Your task to perform on an android device: View the shopping cart on target. Add beats solo 3 to the cart on target, then select checkout. Image 0: 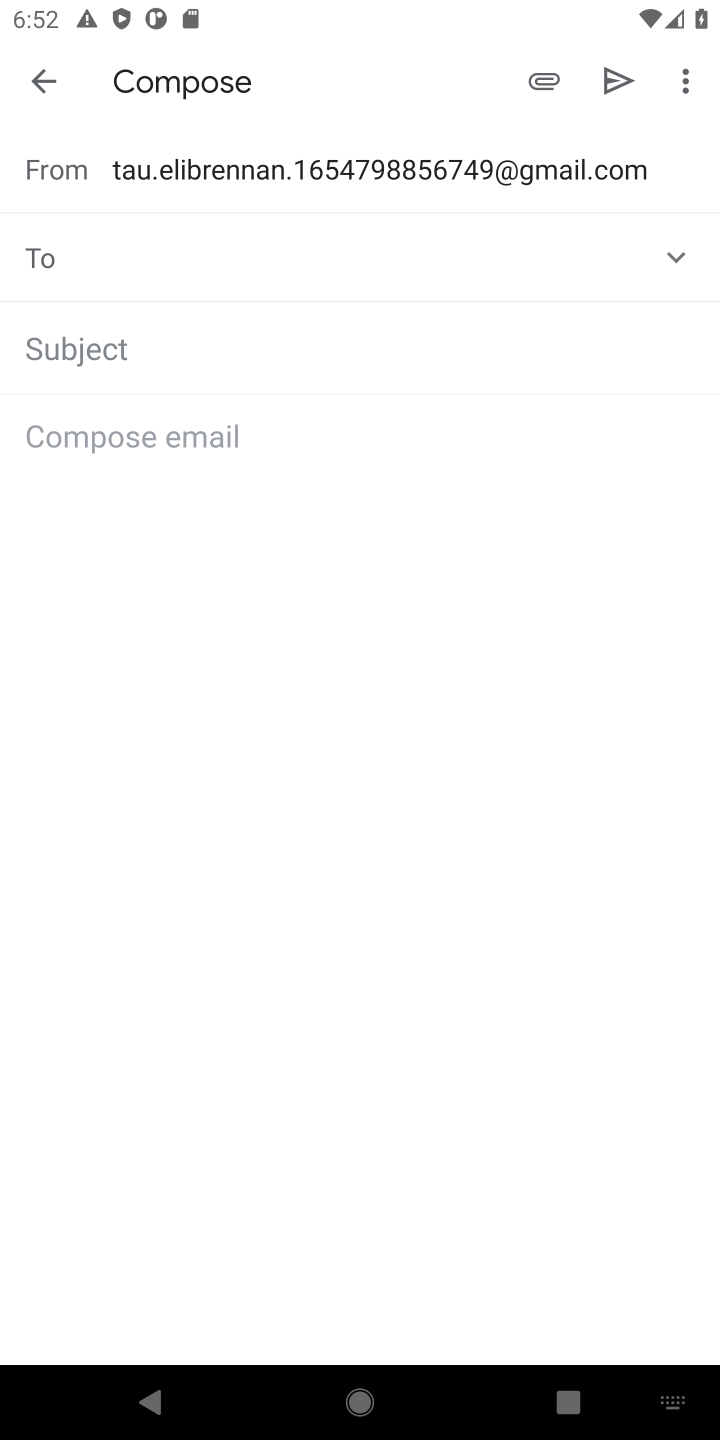
Step 0: press home button
Your task to perform on an android device: View the shopping cart on target. Add beats solo 3 to the cart on target, then select checkout. Image 1: 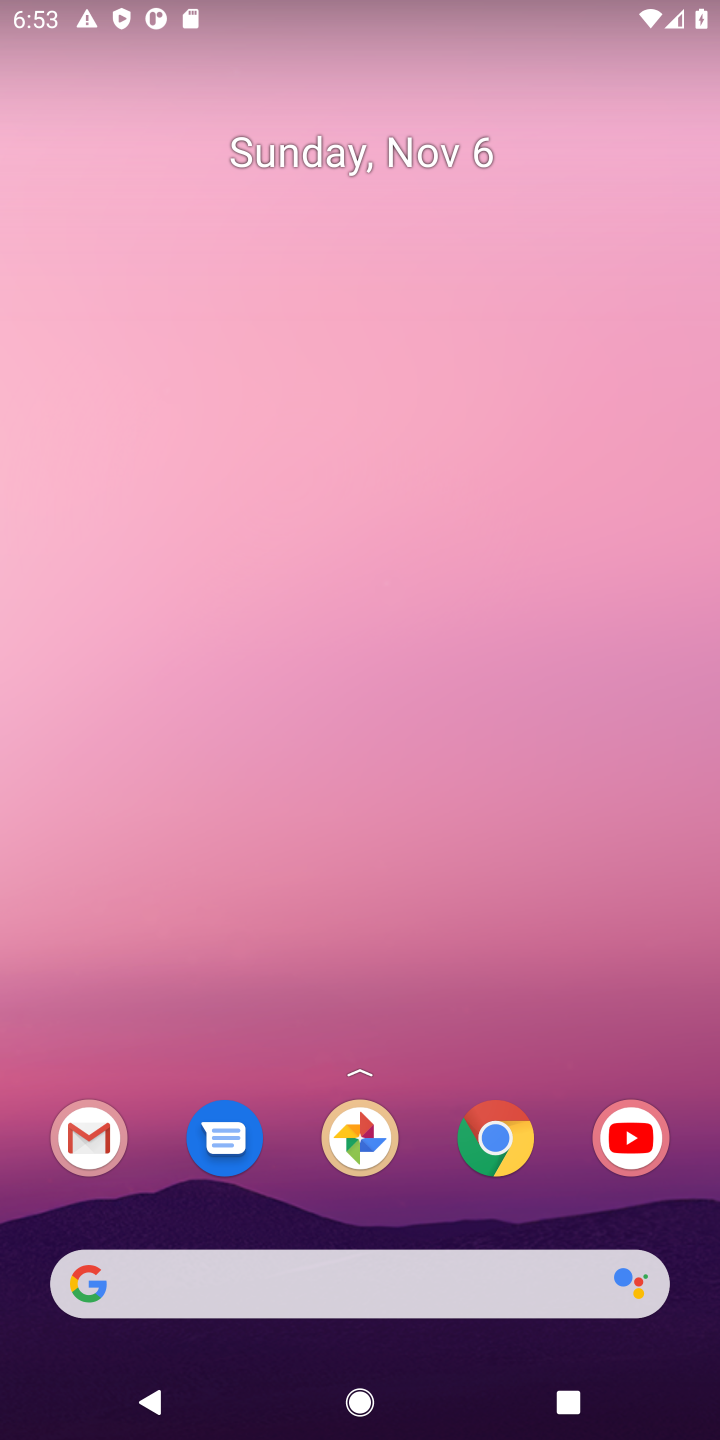
Step 1: click (493, 1143)
Your task to perform on an android device: View the shopping cart on target. Add beats solo 3 to the cart on target, then select checkout. Image 2: 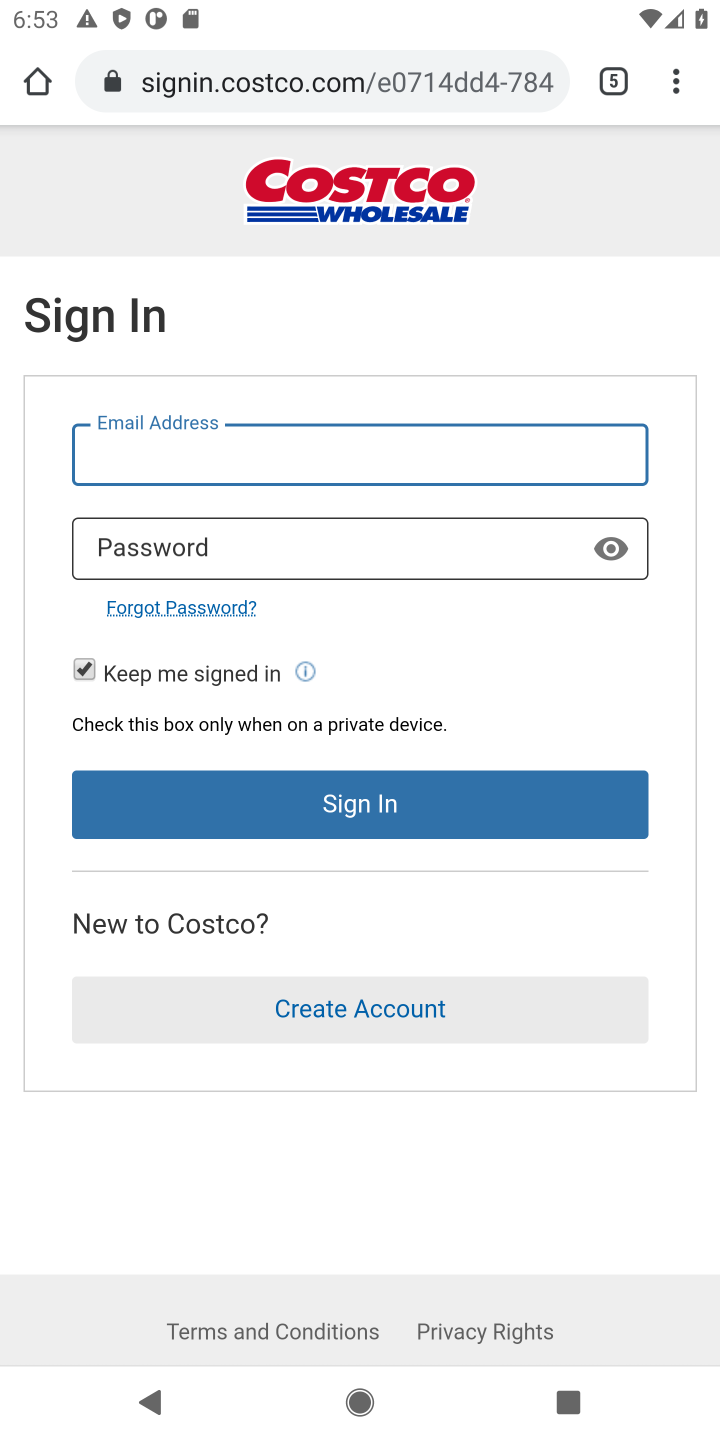
Step 2: click (621, 90)
Your task to perform on an android device: View the shopping cart on target. Add beats solo 3 to the cart on target, then select checkout. Image 3: 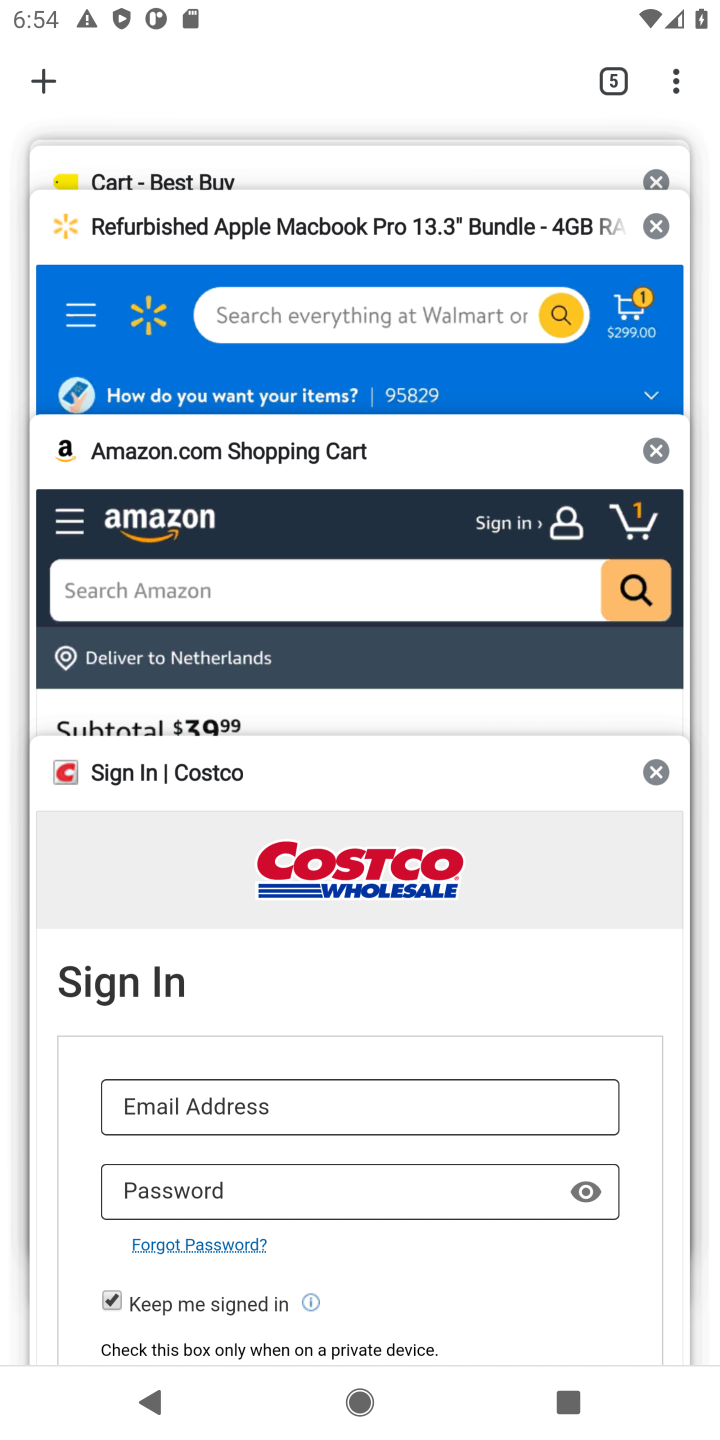
Step 3: click (657, 781)
Your task to perform on an android device: View the shopping cart on target. Add beats solo 3 to the cart on target, then select checkout. Image 4: 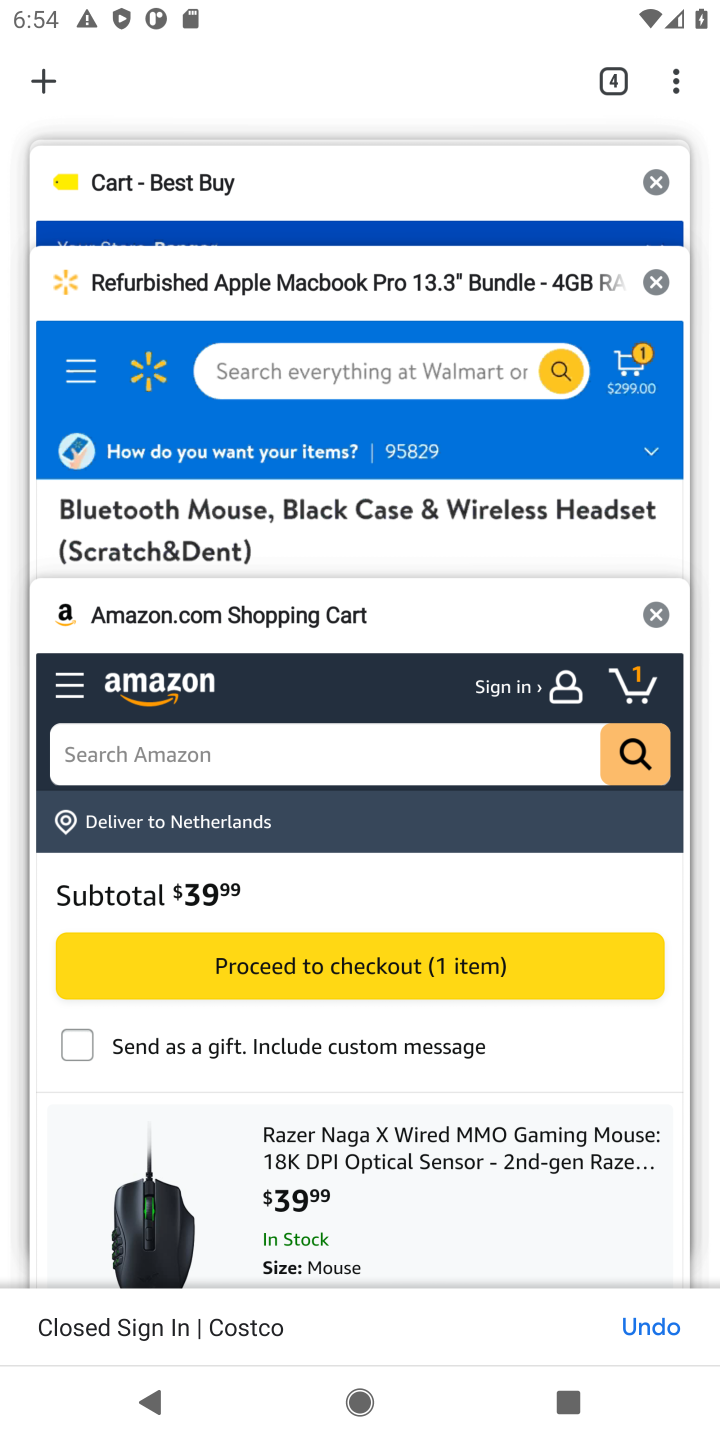
Step 4: click (657, 620)
Your task to perform on an android device: View the shopping cart on target. Add beats solo 3 to the cart on target, then select checkout. Image 5: 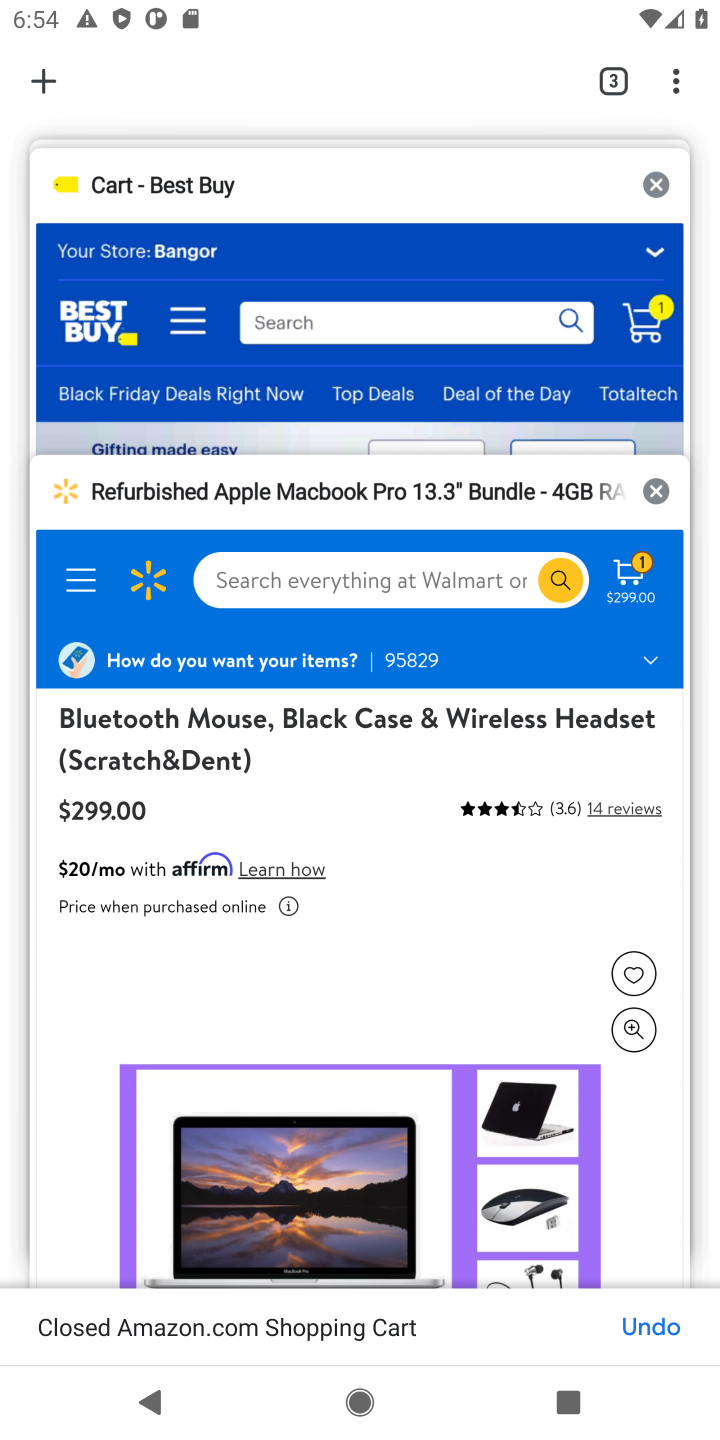
Step 5: click (659, 483)
Your task to perform on an android device: View the shopping cart on target. Add beats solo 3 to the cart on target, then select checkout. Image 6: 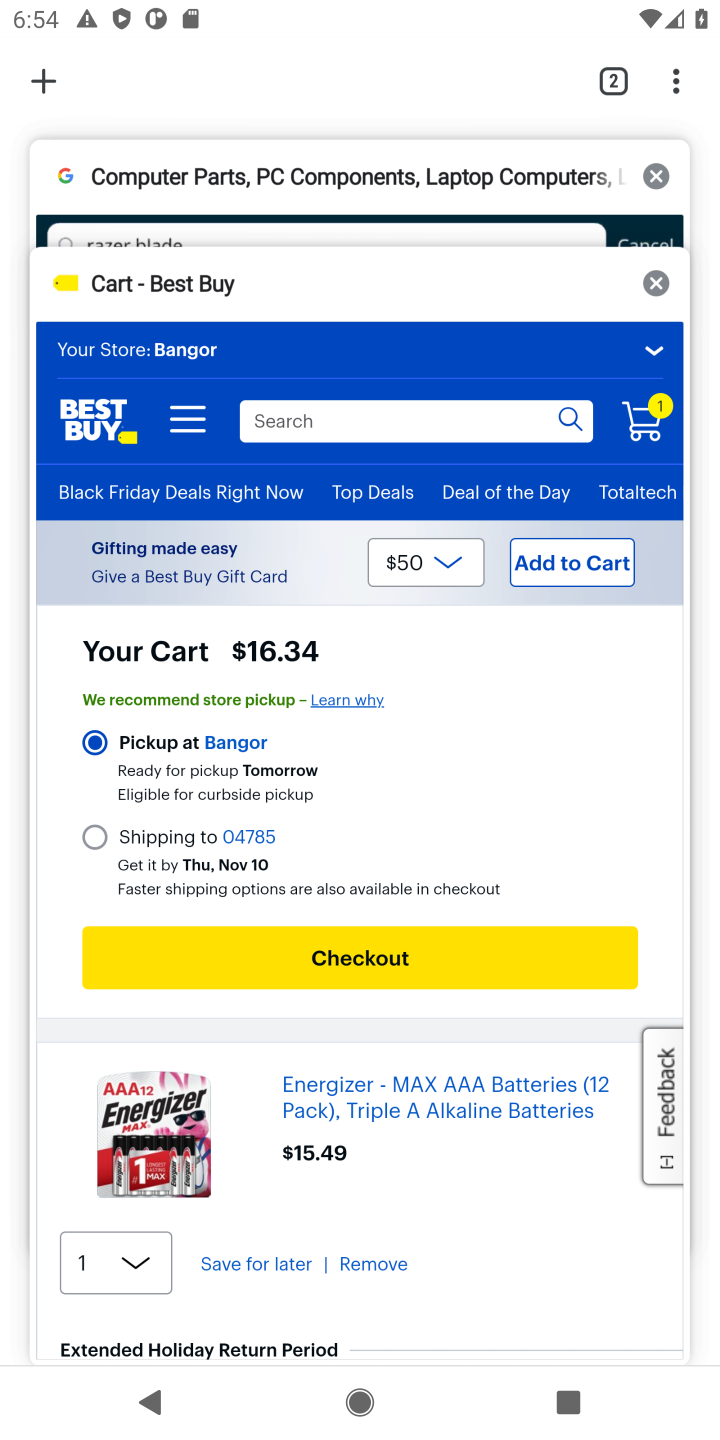
Step 6: click (649, 285)
Your task to perform on an android device: View the shopping cart on target. Add beats solo 3 to the cart on target, then select checkout. Image 7: 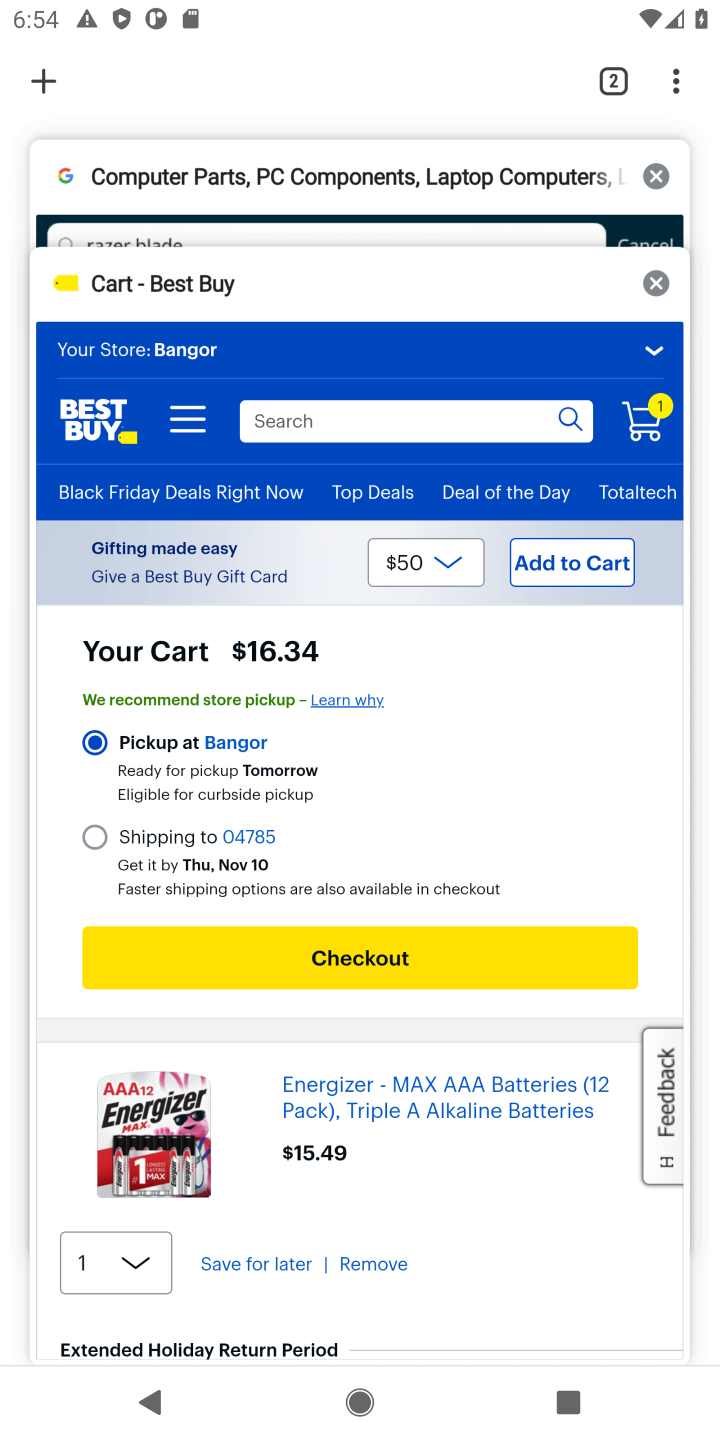
Step 7: click (46, 77)
Your task to perform on an android device: View the shopping cart on target. Add beats solo 3 to the cart on target, then select checkout. Image 8: 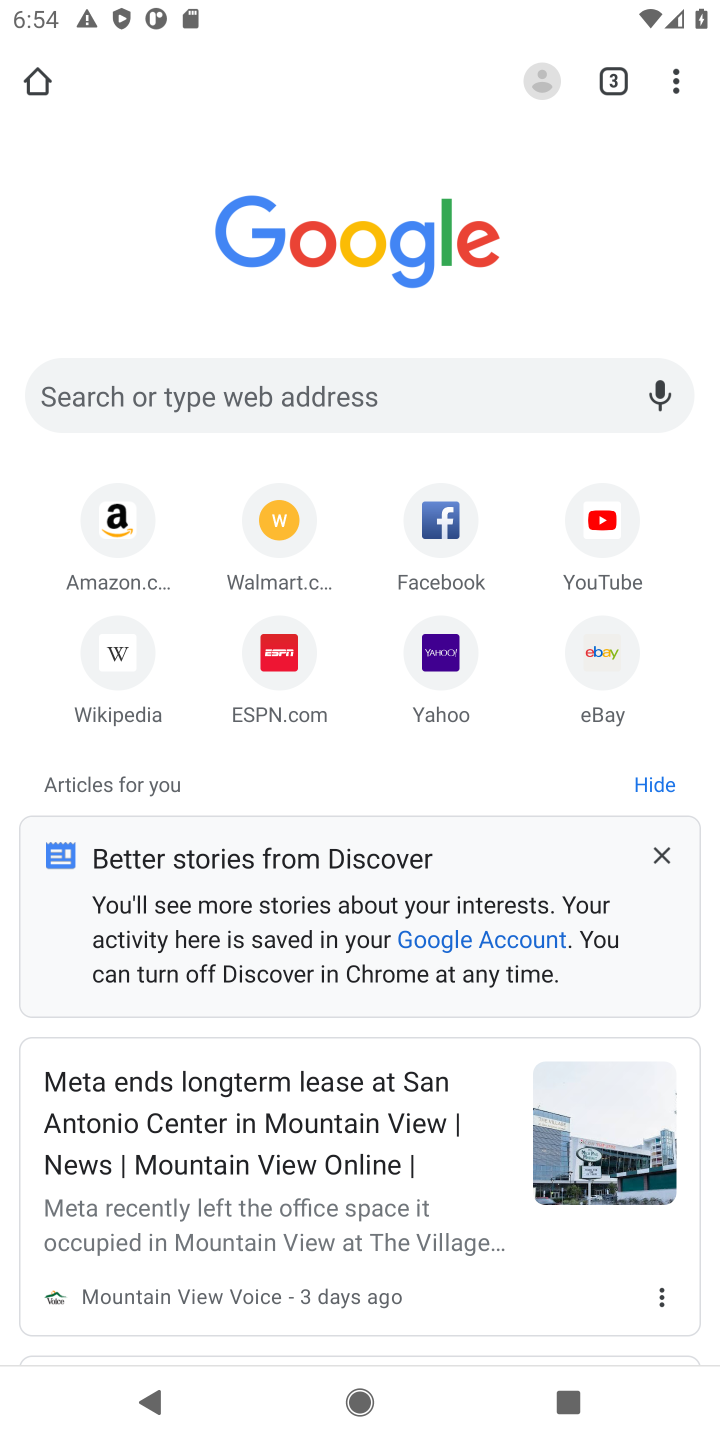
Step 8: click (319, 390)
Your task to perform on an android device: View the shopping cart on target. Add beats solo 3 to the cart on target, then select checkout. Image 9: 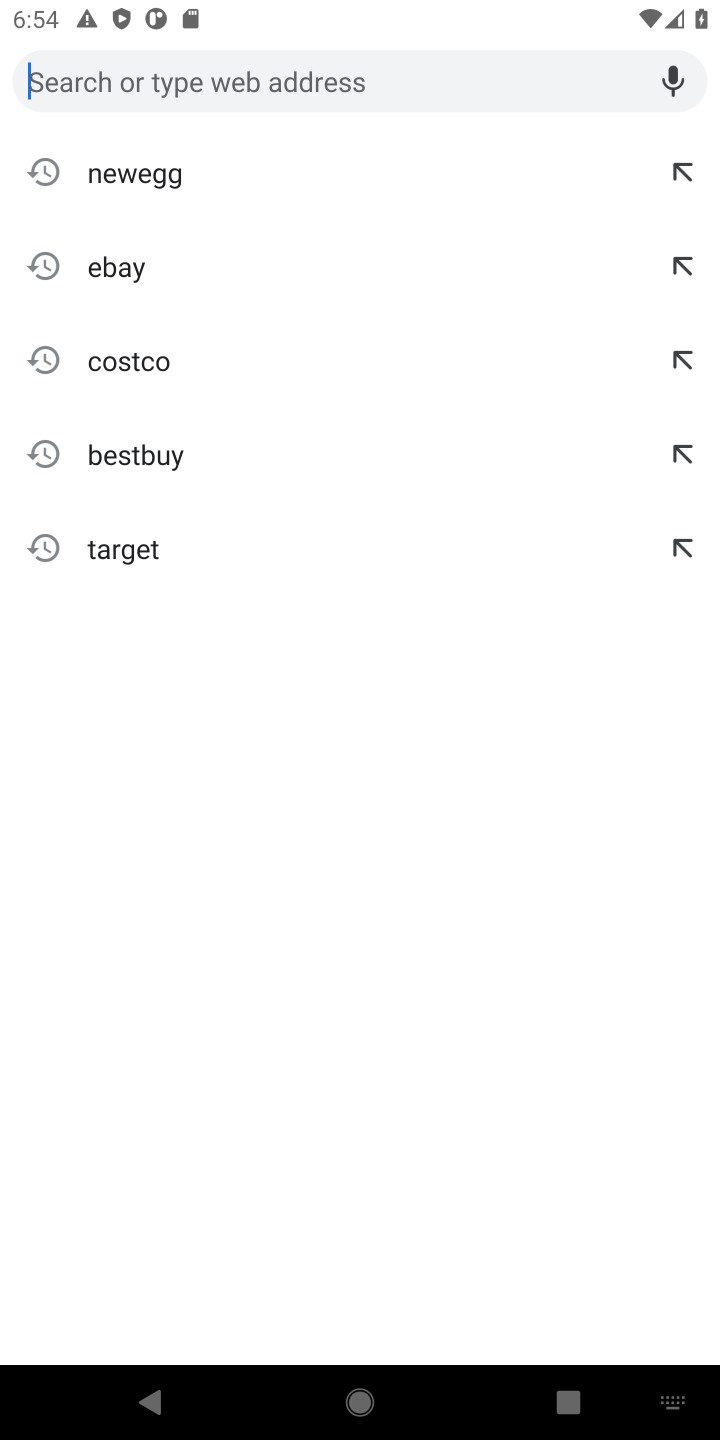
Step 9: click (200, 562)
Your task to perform on an android device: View the shopping cart on target. Add beats solo 3 to the cart on target, then select checkout. Image 10: 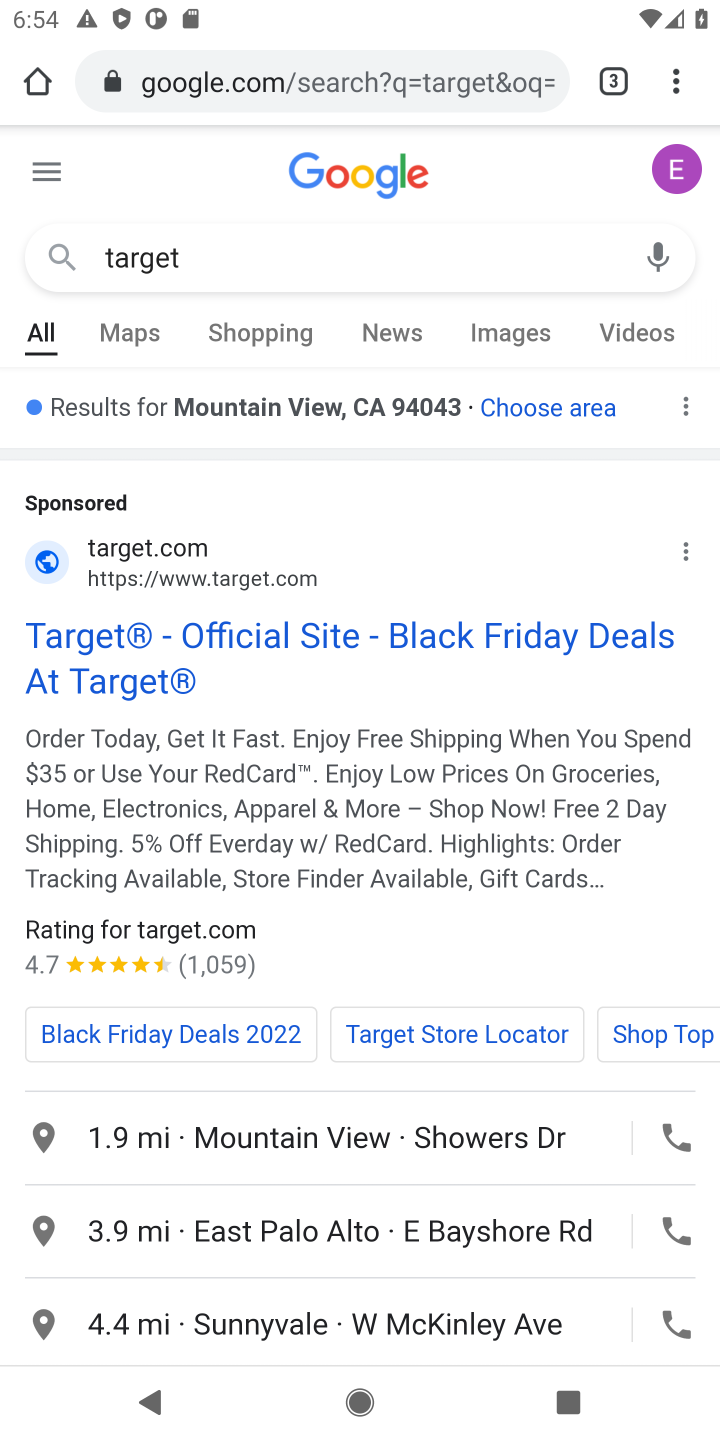
Step 10: drag from (360, 1173) to (494, 453)
Your task to perform on an android device: View the shopping cart on target. Add beats solo 3 to the cart on target, then select checkout. Image 11: 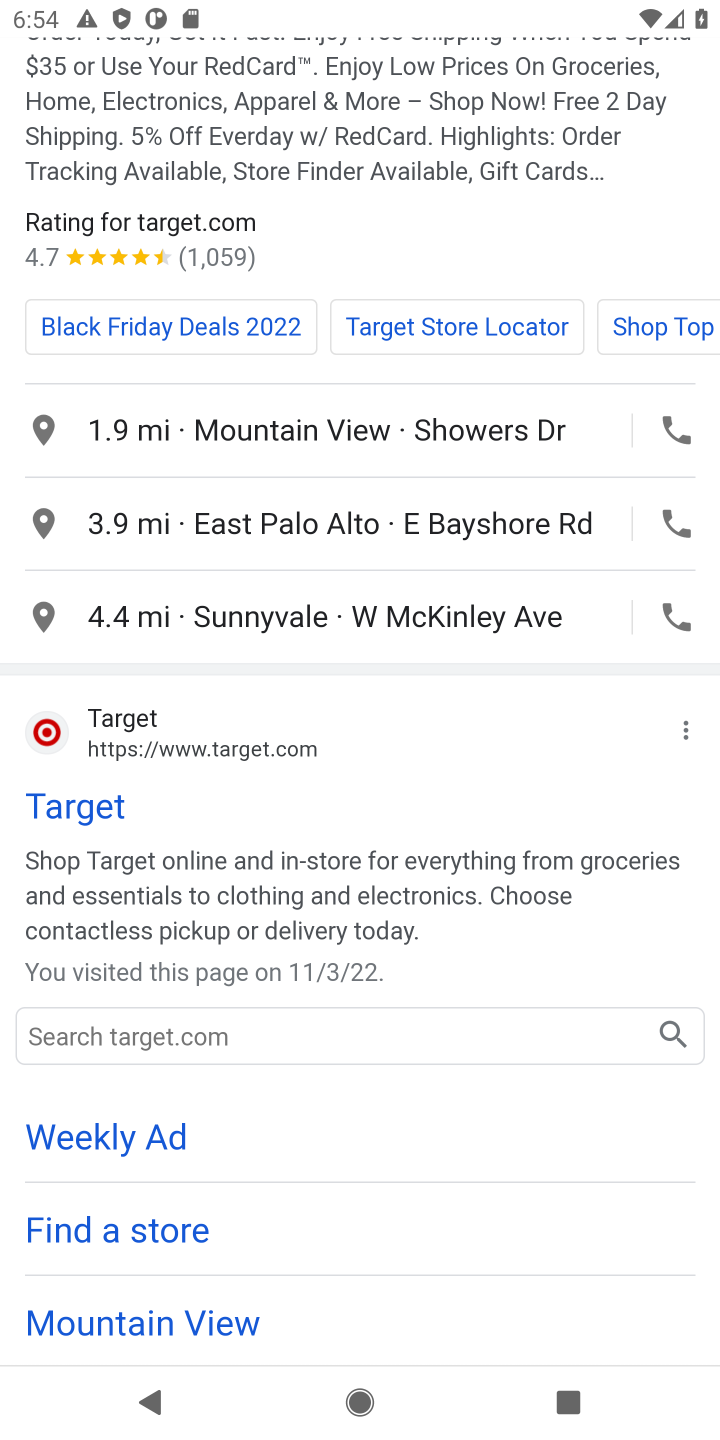
Step 11: click (36, 815)
Your task to perform on an android device: View the shopping cart on target. Add beats solo 3 to the cart on target, then select checkout. Image 12: 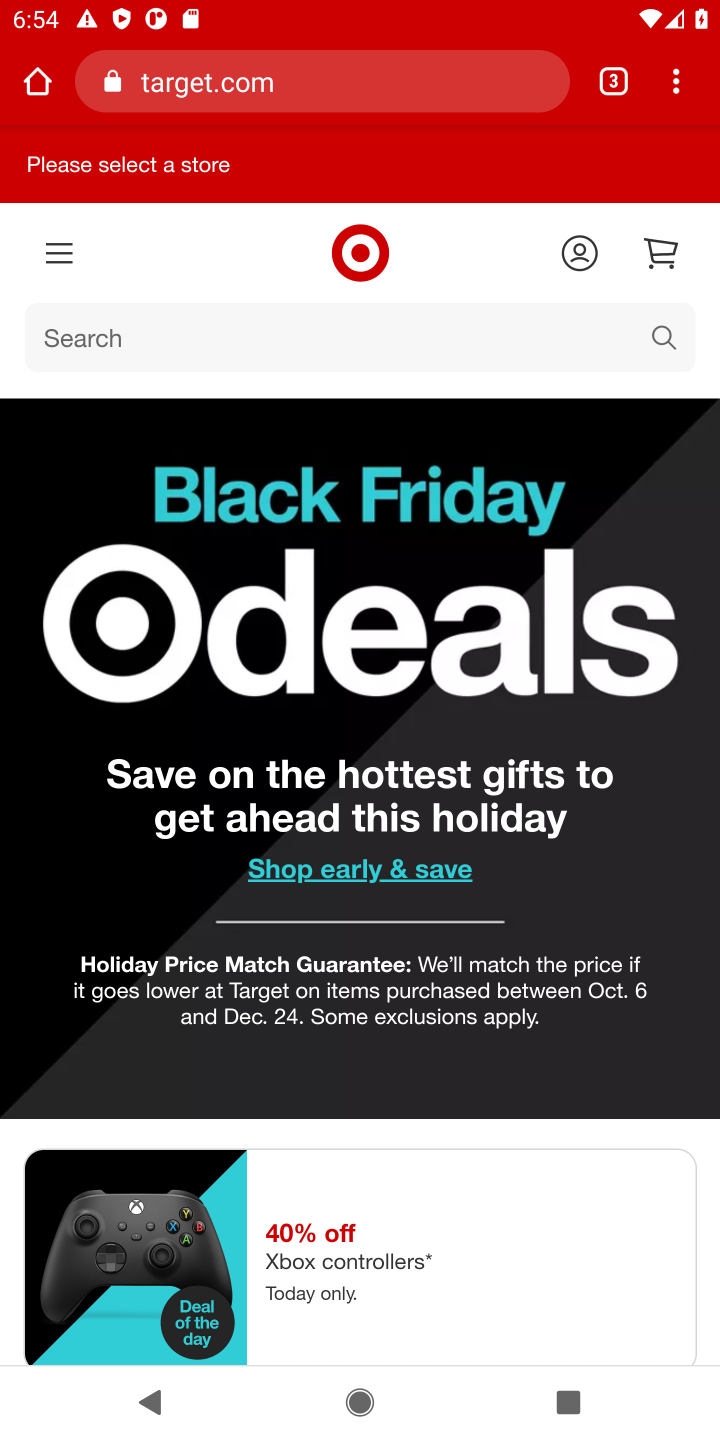
Step 12: click (667, 242)
Your task to perform on an android device: View the shopping cart on target. Add beats solo 3 to the cart on target, then select checkout. Image 13: 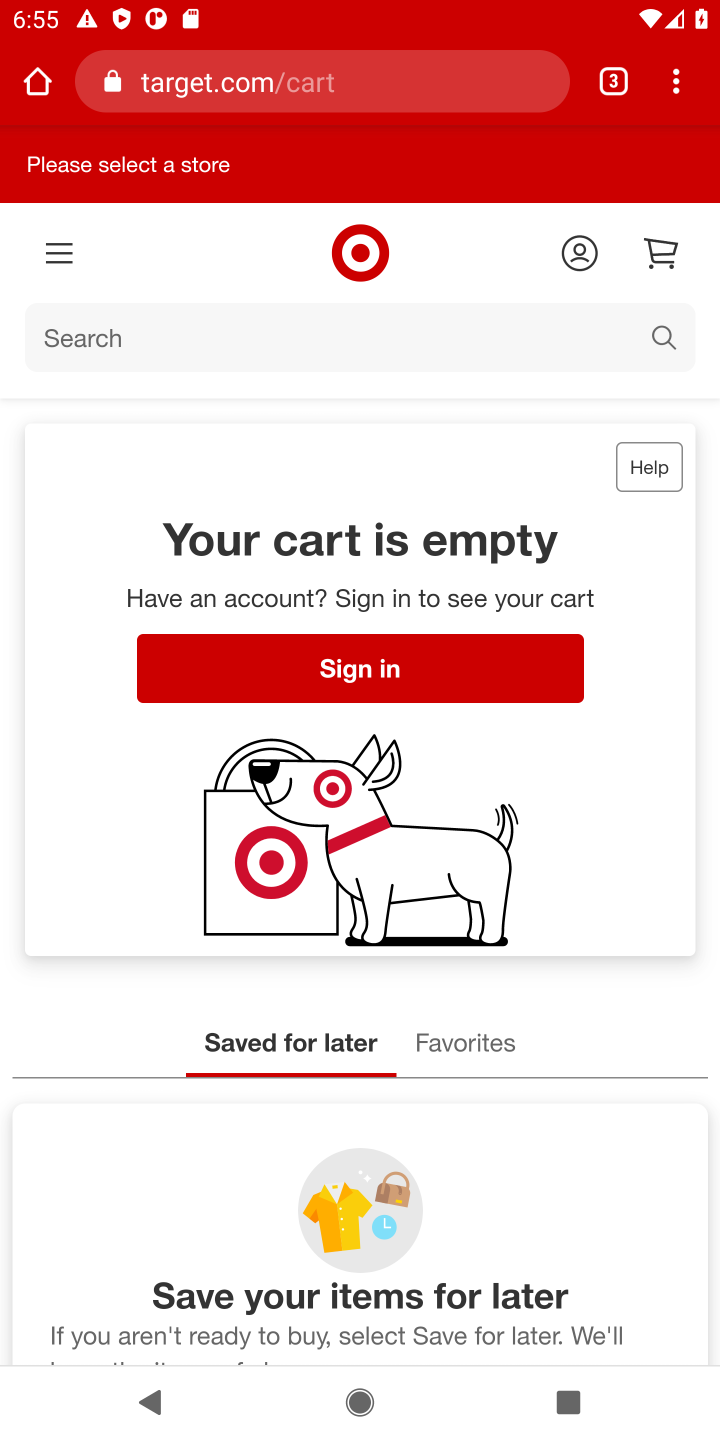
Step 13: drag from (291, 1194) to (348, 1251)
Your task to perform on an android device: View the shopping cart on target. Add beats solo 3 to the cart on target, then select checkout. Image 14: 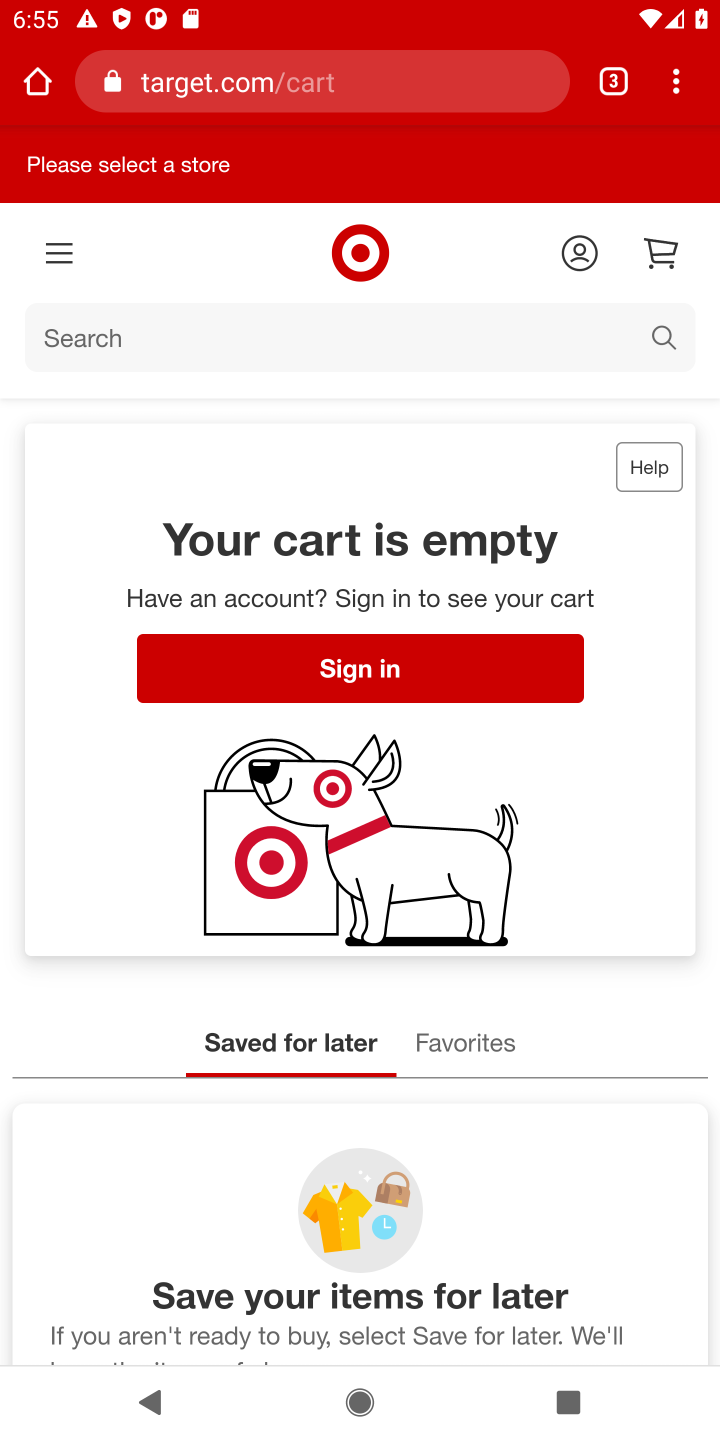
Step 14: click (168, 337)
Your task to perform on an android device: View the shopping cart on target. Add beats solo 3 to the cart on target, then select checkout. Image 15: 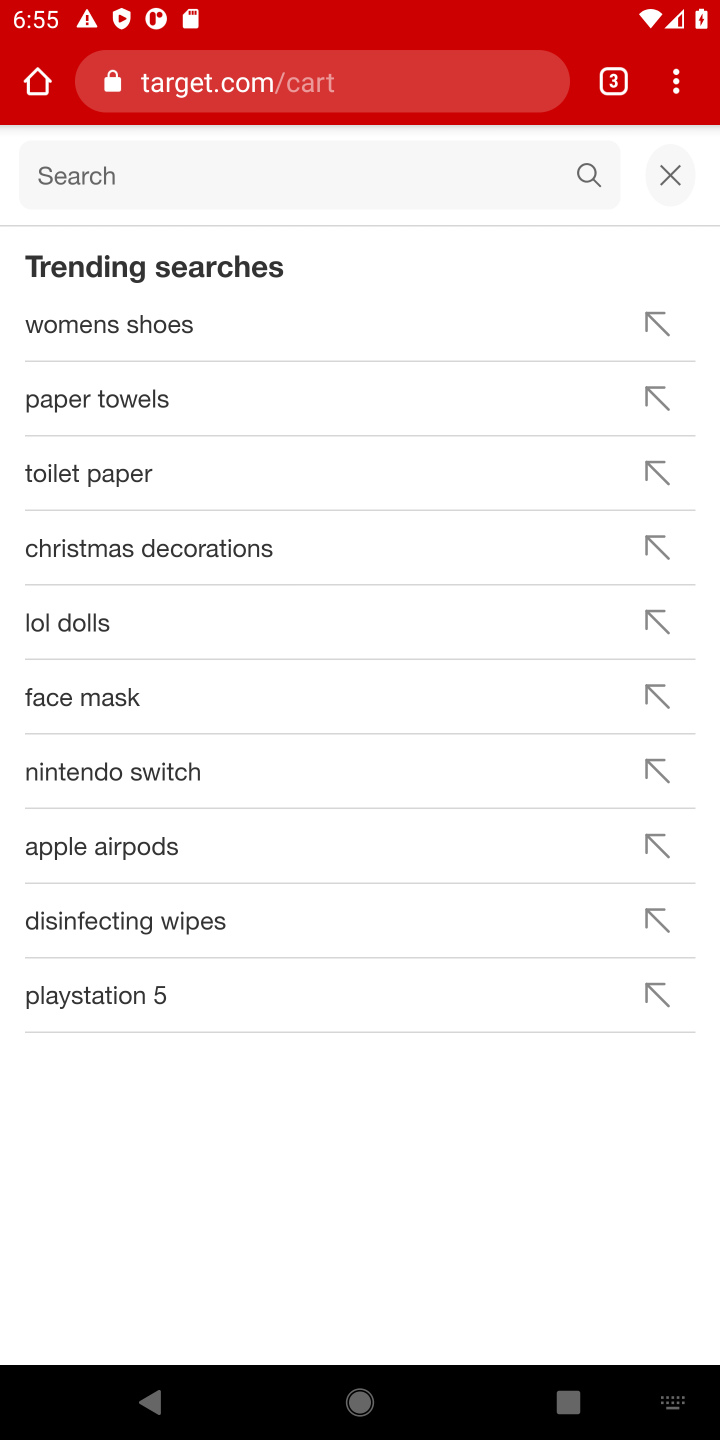
Step 15: click (138, 173)
Your task to perform on an android device: View the shopping cart on target. Add beats solo 3 to the cart on target, then select checkout. Image 16: 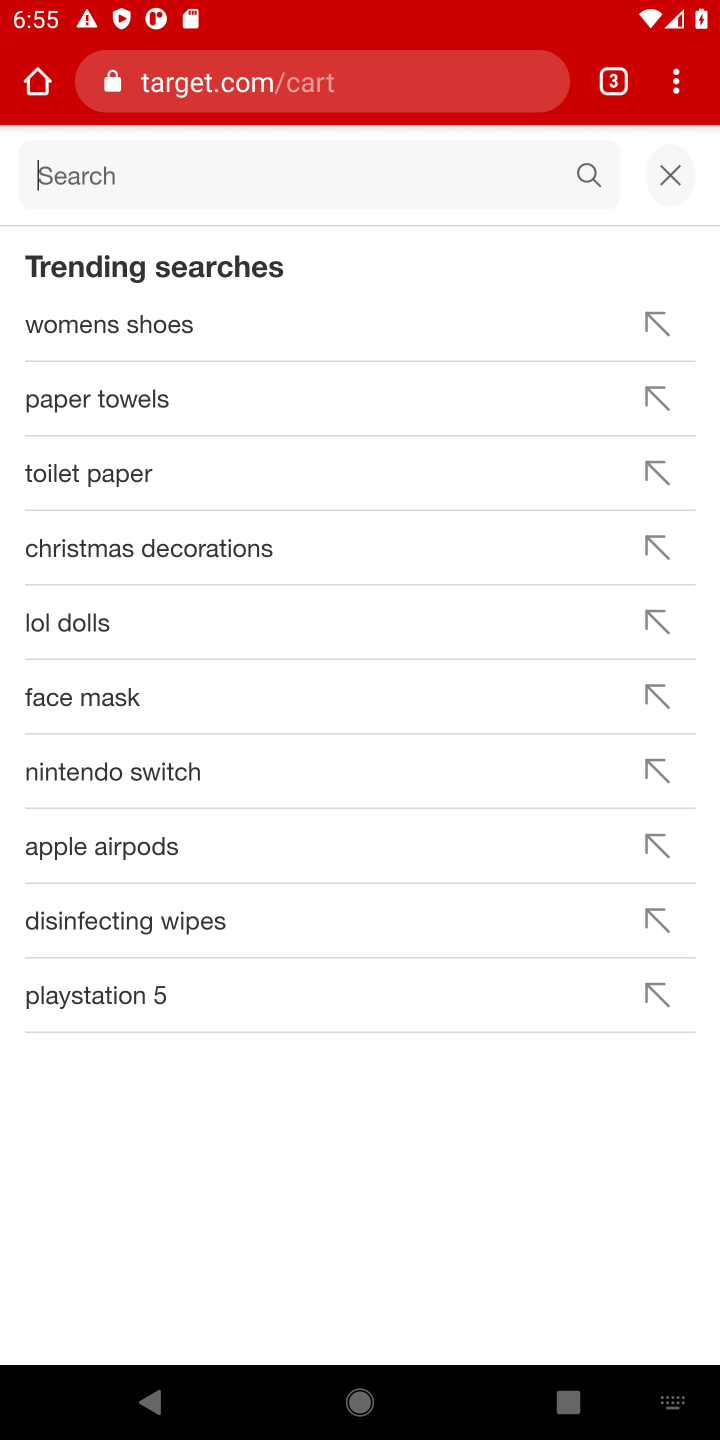
Step 16: type "beats solo 3"
Your task to perform on an android device: View the shopping cart on target. Add beats solo 3 to the cart on target, then select checkout. Image 17: 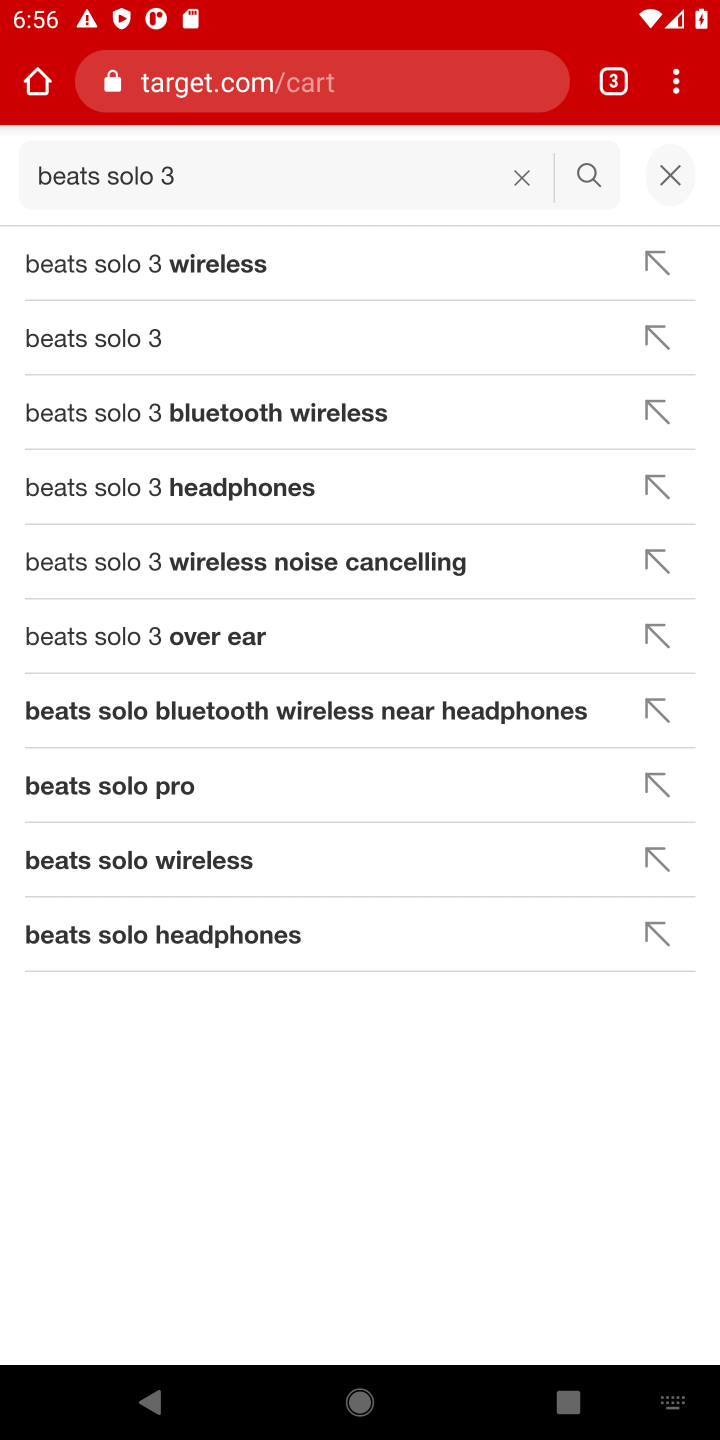
Step 17: click (104, 329)
Your task to perform on an android device: View the shopping cart on target. Add beats solo 3 to the cart on target, then select checkout. Image 18: 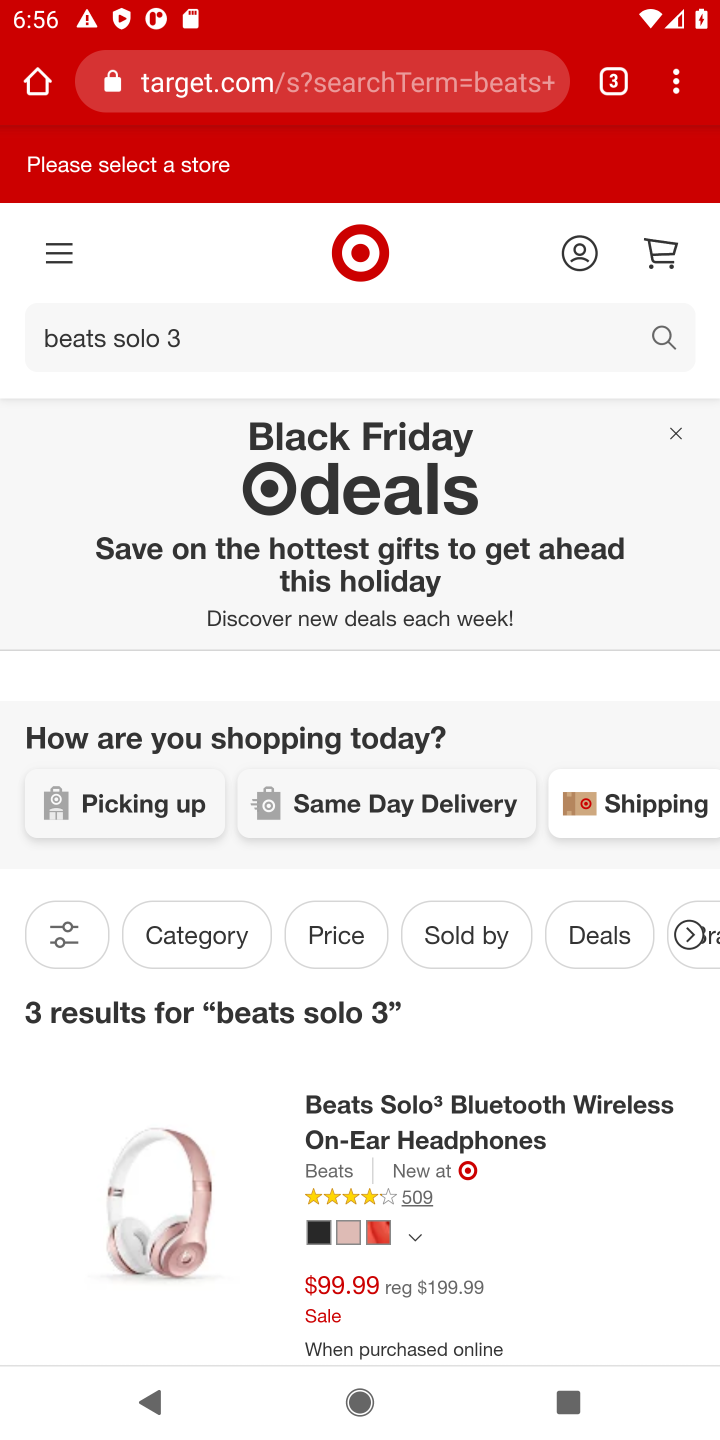
Step 18: drag from (435, 1265) to (487, 781)
Your task to perform on an android device: View the shopping cart on target. Add beats solo 3 to the cart on target, then select checkout. Image 19: 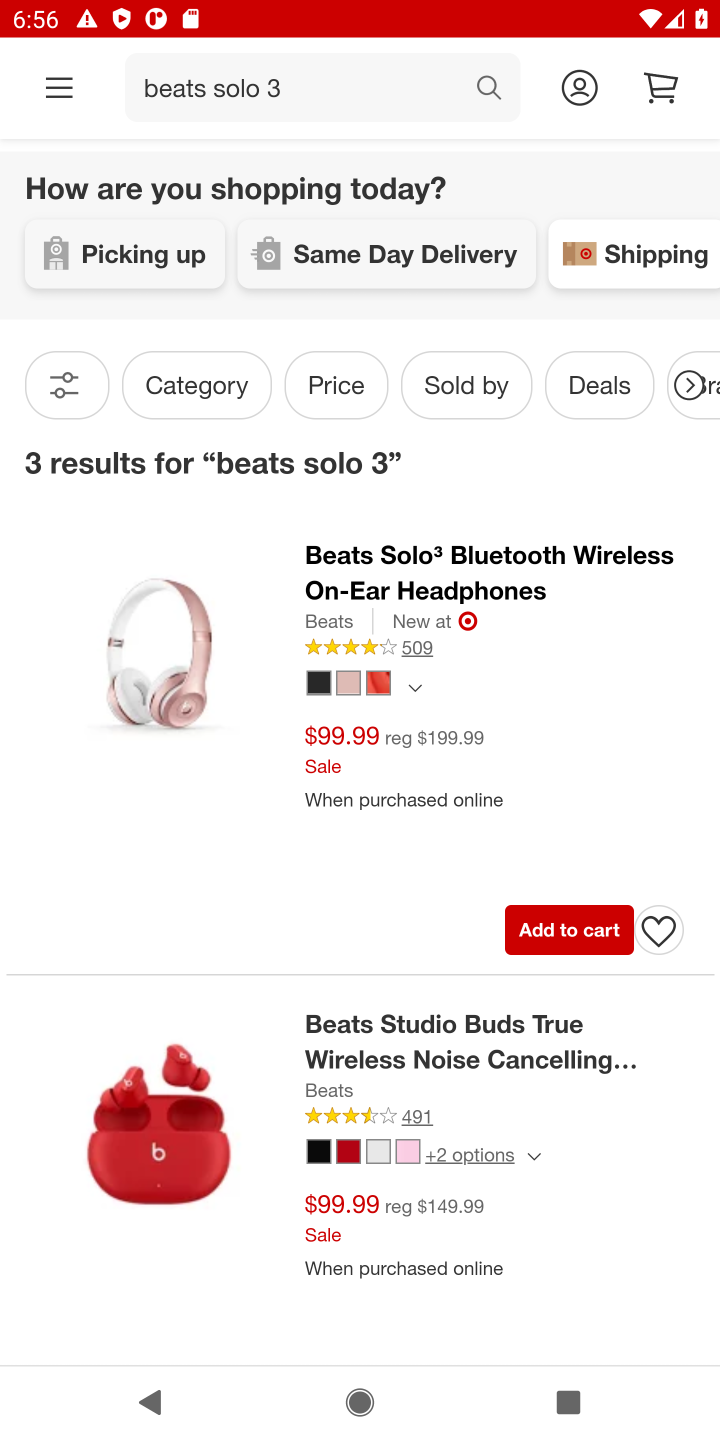
Step 19: click (550, 937)
Your task to perform on an android device: View the shopping cart on target. Add beats solo 3 to the cart on target, then select checkout. Image 20: 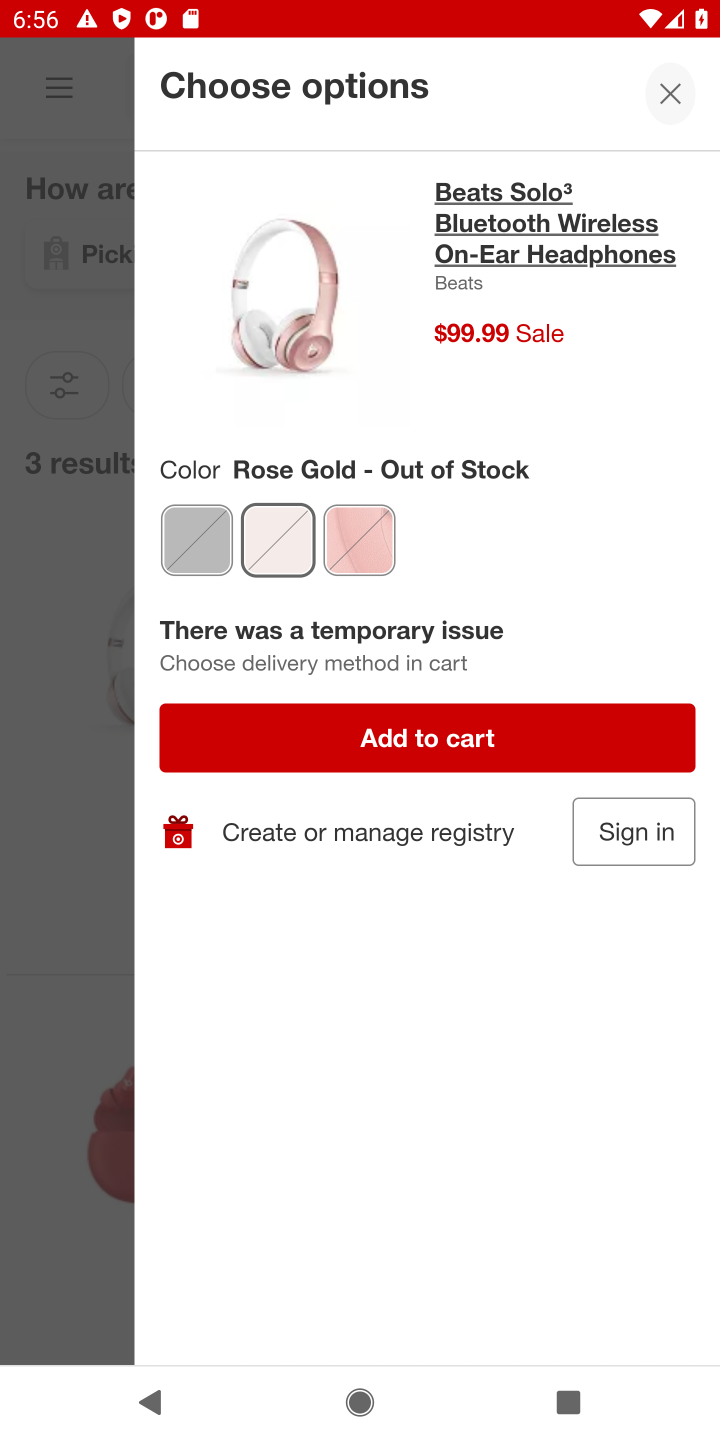
Step 20: click (454, 730)
Your task to perform on an android device: View the shopping cart on target. Add beats solo 3 to the cart on target, then select checkout. Image 21: 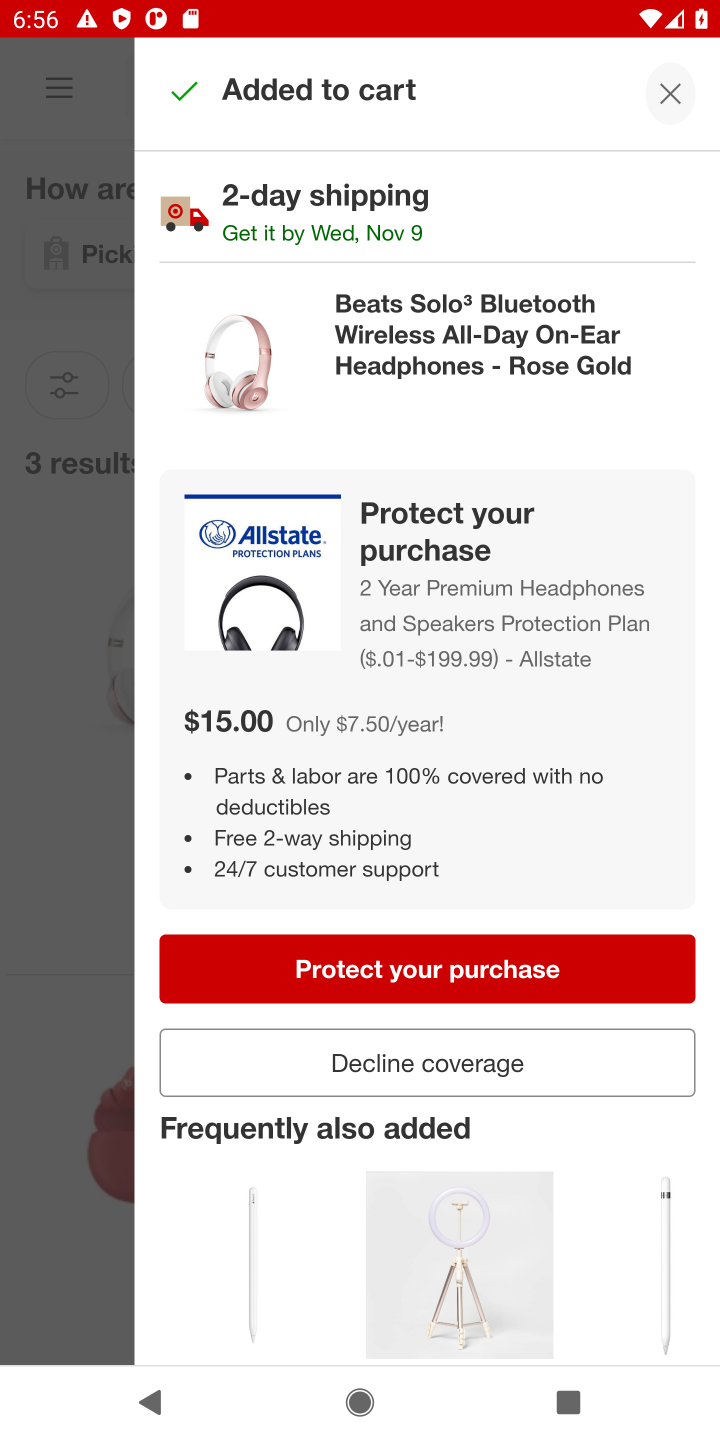
Step 21: task complete